Your task to perform on an android device: turn notification dots off Image 0: 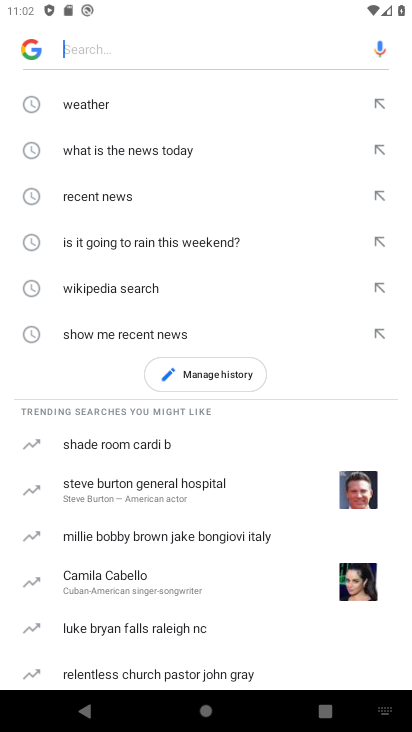
Step 0: press home button
Your task to perform on an android device: turn notification dots off Image 1: 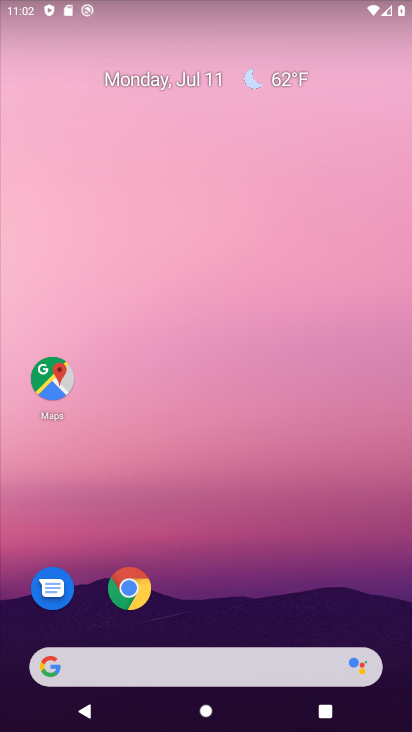
Step 1: drag from (220, 593) to (204, 9)
Your task to perform on an android device: turn notification dots off Image 2: 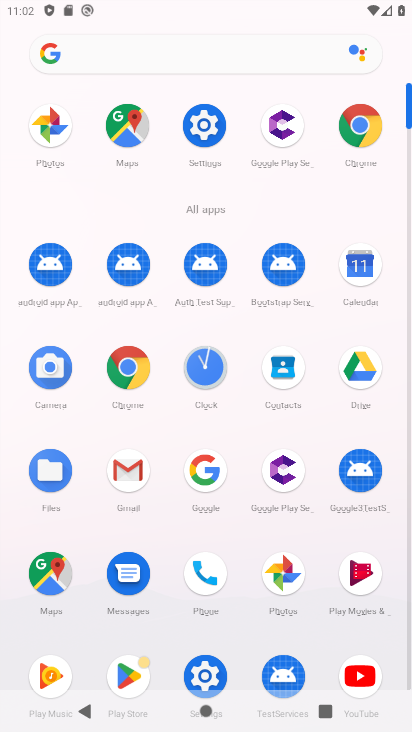
Step 2: click (198, 130)
Your task to perform on an android device: turn notification dots off Image 3: 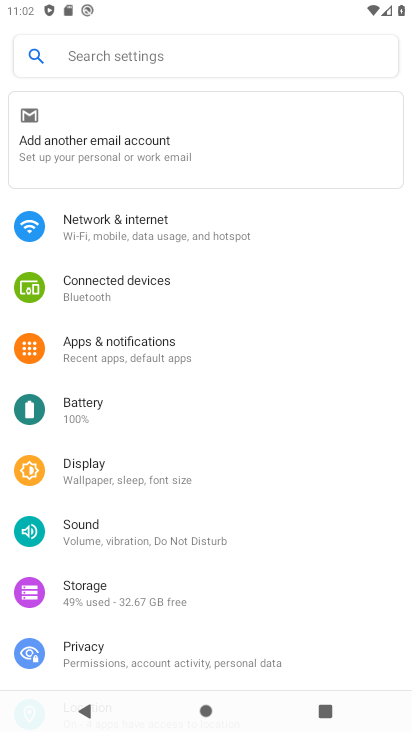
Step 3: click (187, 350)
Your task to perform on an android device: turn notification dots off Image 4: 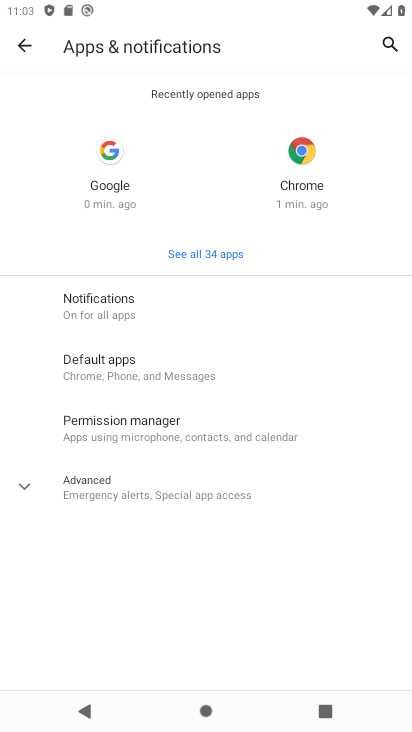
Step 4: click (134, 295)
Your task to perform on an android device: turn notification dots off Image 5: 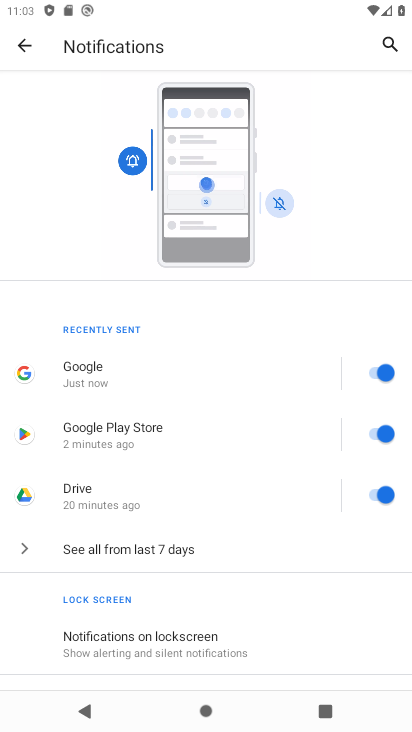
Step 5: drag from (314, 555) to (296, 418)
Your task to perform on an android device: turn notification dots off Image 6: 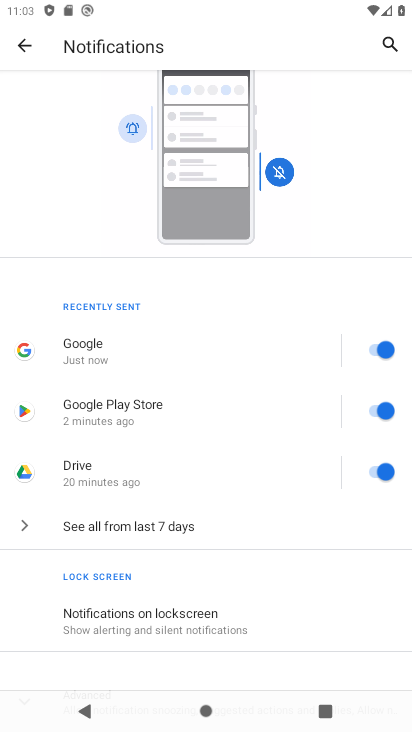
Step 6: click (118, 369)
Your task to perform on an android device: turn notification dots off Image 7: 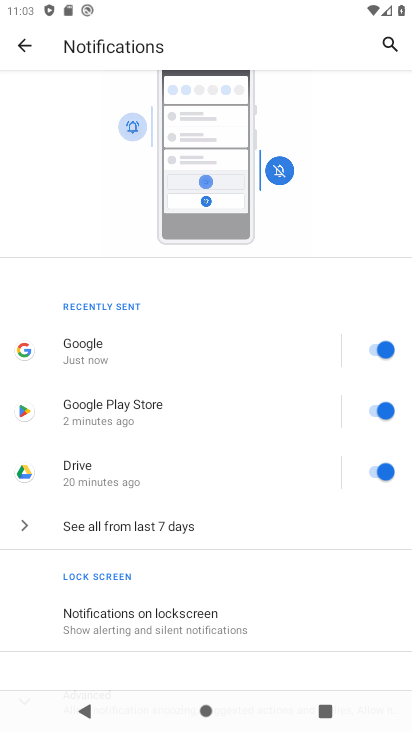
Step 7: drag from (268, 514) to (268, 341)
Your task to perform on an android device: turn notification dots off Image 8: 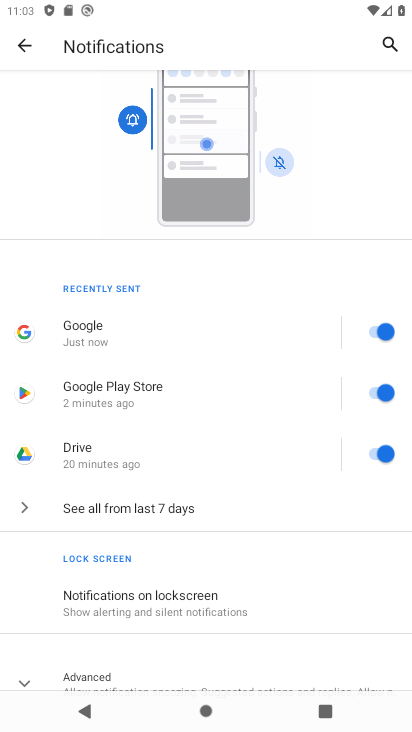
Step 8: drag from (138, 622) to (301, 101)
Your task to perform on an android device: turn notification dots off Image 9: 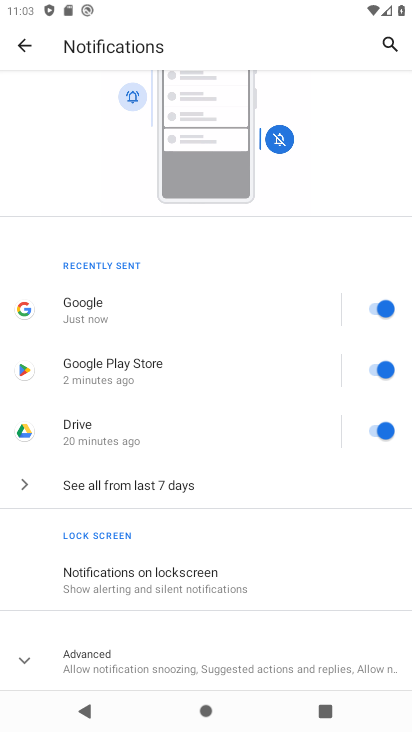
Step 9: click (78, 675)
Your task to perform on an android device: turn notification dots off Image 10: 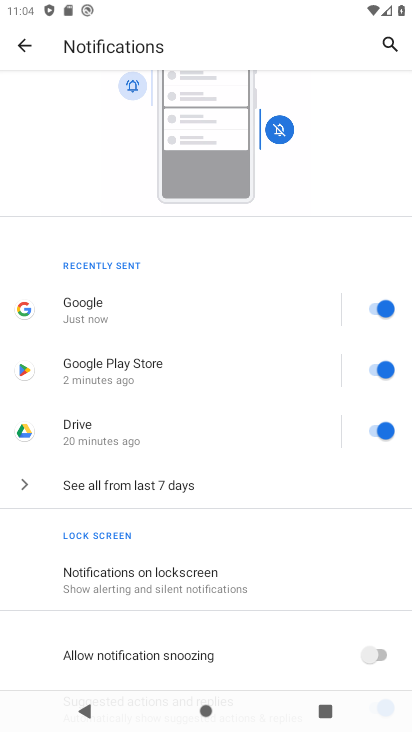
Step 10: drag from (166, 418) to (177, 362)
Your task to perform on an android device: turn notification dots off Image 11: 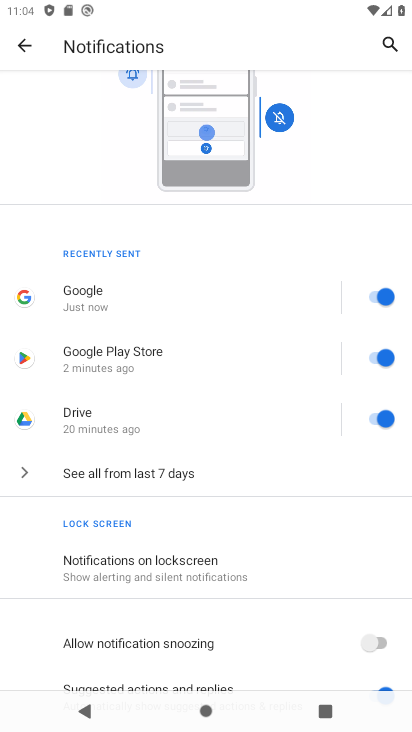
Step 11: click (104, 565)
Your task to perform on an android device: turn notification dots off Image 12: 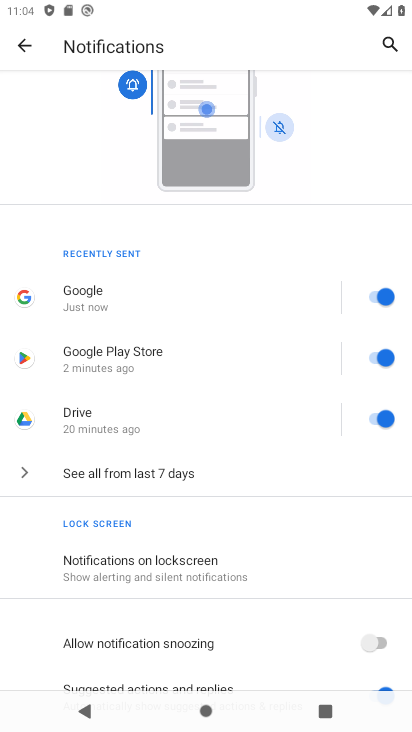
Step 12: click (110, 544)
Your task to perform on an android device: turn notification dots off Image 13: 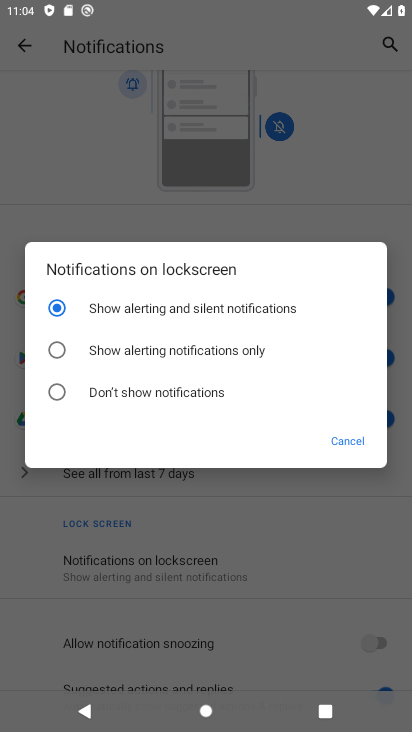
Step 13: click (338, 439)
Your task to perform on an android device: turn notification dots off Image 14: 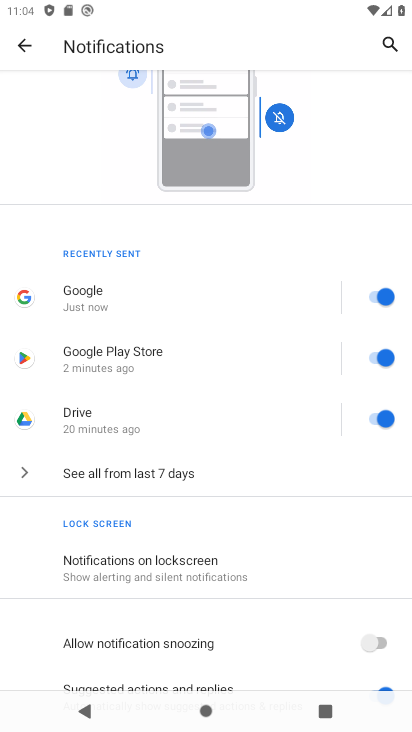
Step 14: drag from (185, 612) to (202, 405)
Your task to perform on an android device: turn notification dots off Image 15: 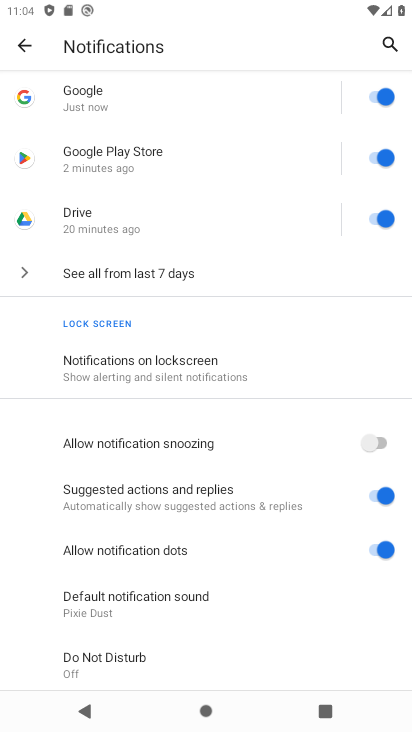
Step 15: click (376, 548)
Your task to perform on an android device: turn notification dots off Image 16: 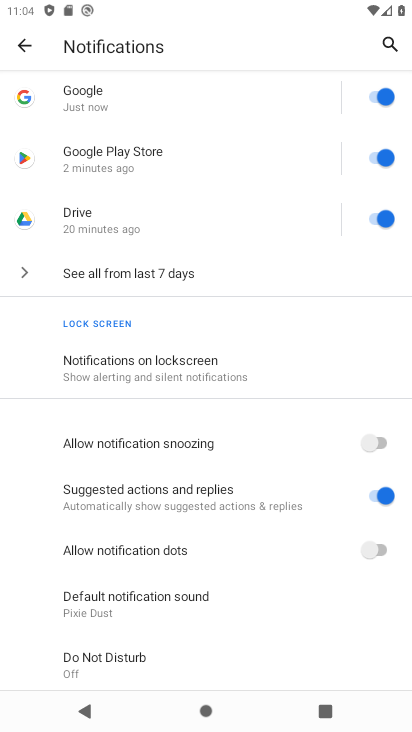
Step 16: task complete